Your task to perform on an android device: Add bose soundsport free to the cart on walmart.com, then select checkout. Image 0: 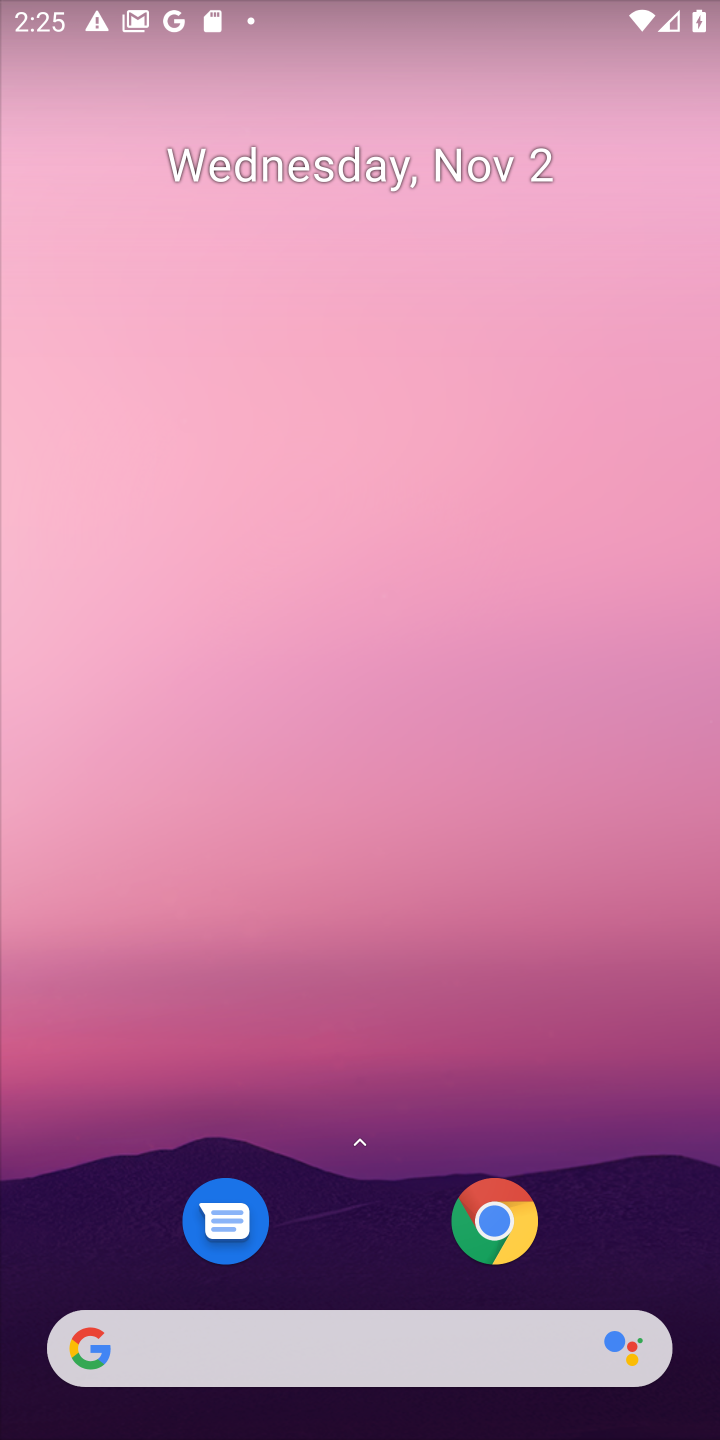
Step 0: click (403, 1359)
Your task to perform on an android device: Add bose soundsport free to the cart on walmart.com, then select checkout. Image 1: 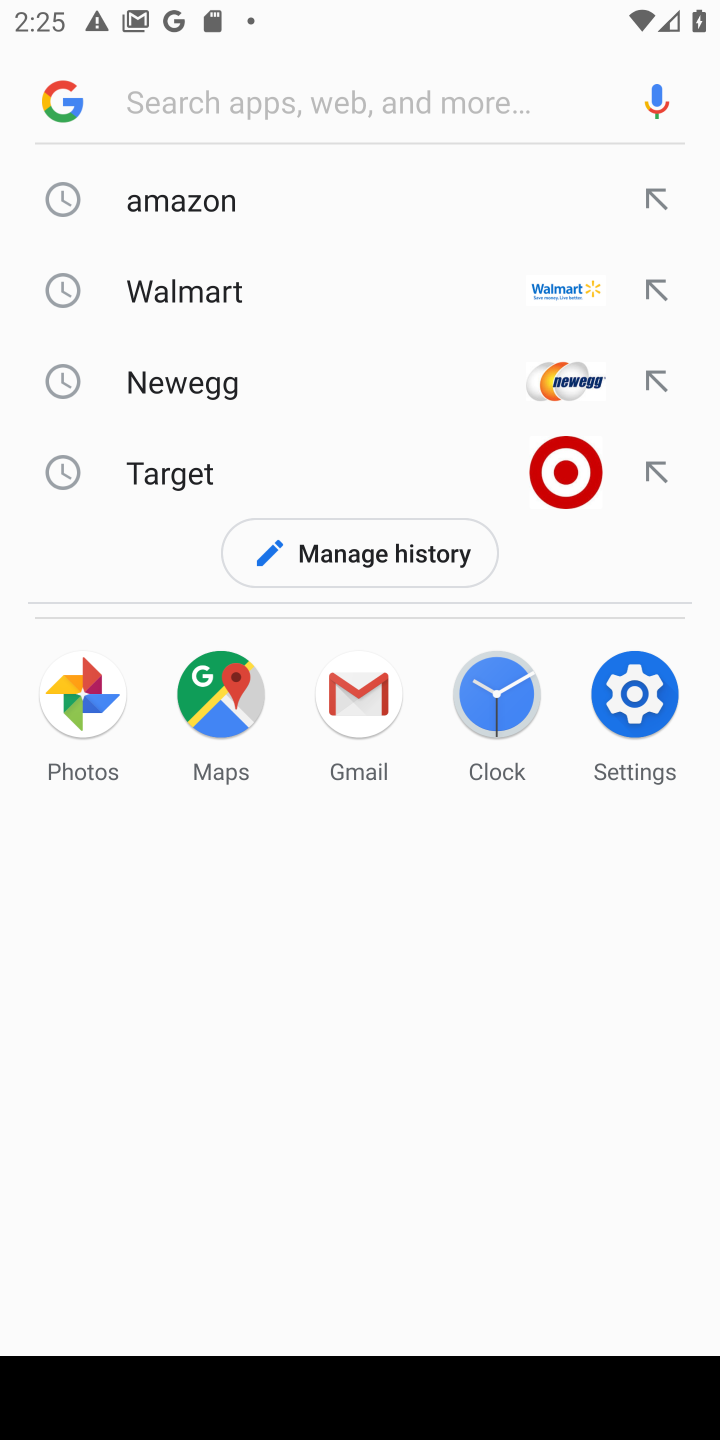
Step 1: type "wa"
Your task to perform on an android device: Add bose soundsport free to the cart on walmart.com, then select checkout. Image 2: 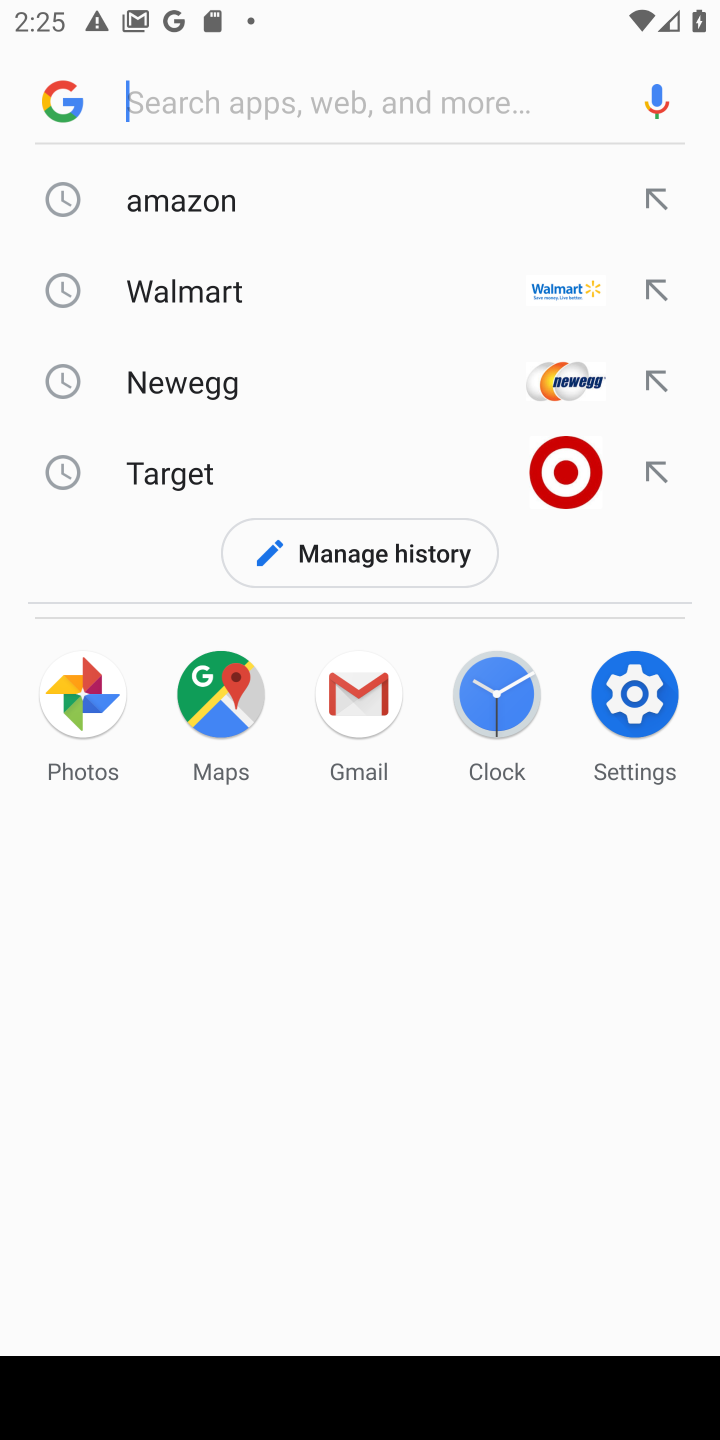
Step 2: click (153, 311)
Your task to perform on an android device: Add bose soundsport free to the cart on walmart.com, then select checkout. Image 3: 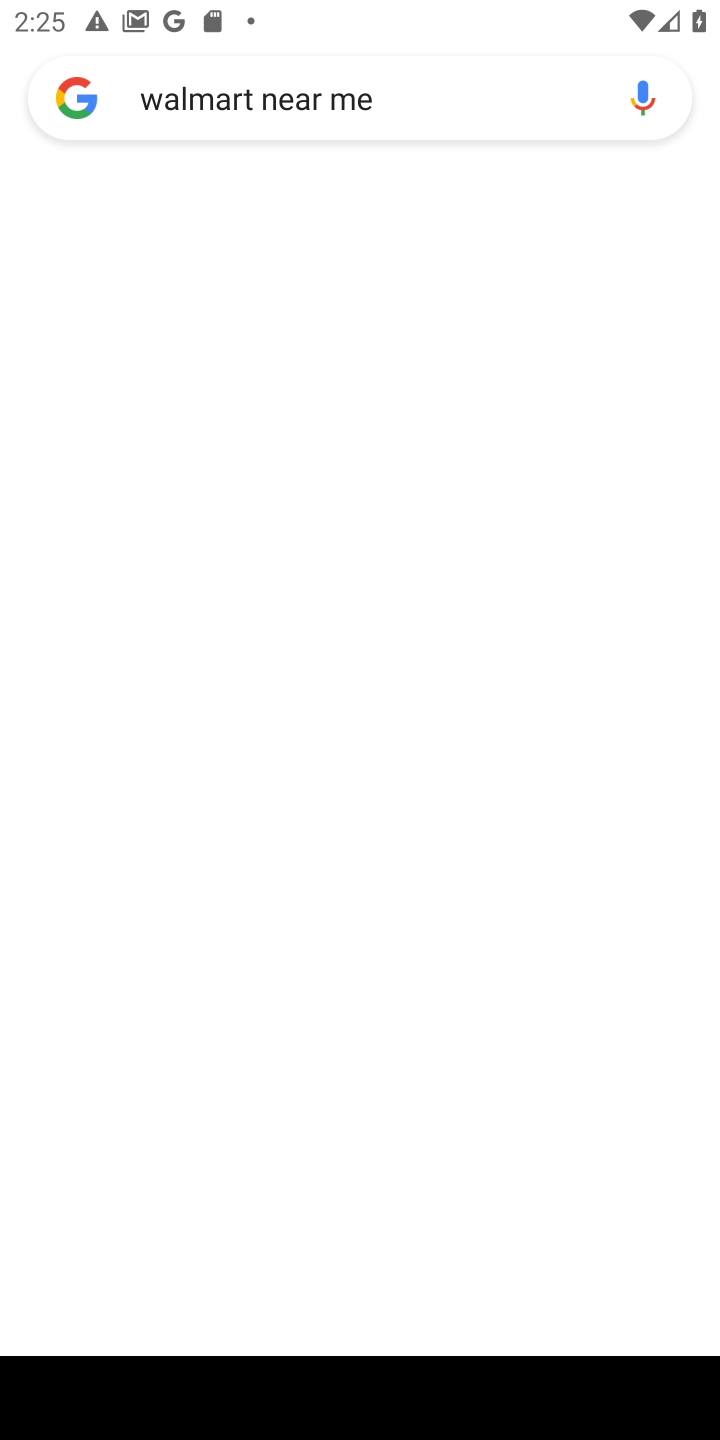
Step 3: click (153, 311)
Your task to perform on an android device: Add bose soundsport free to the cart on walmart.com, then select checkout. Image 4: 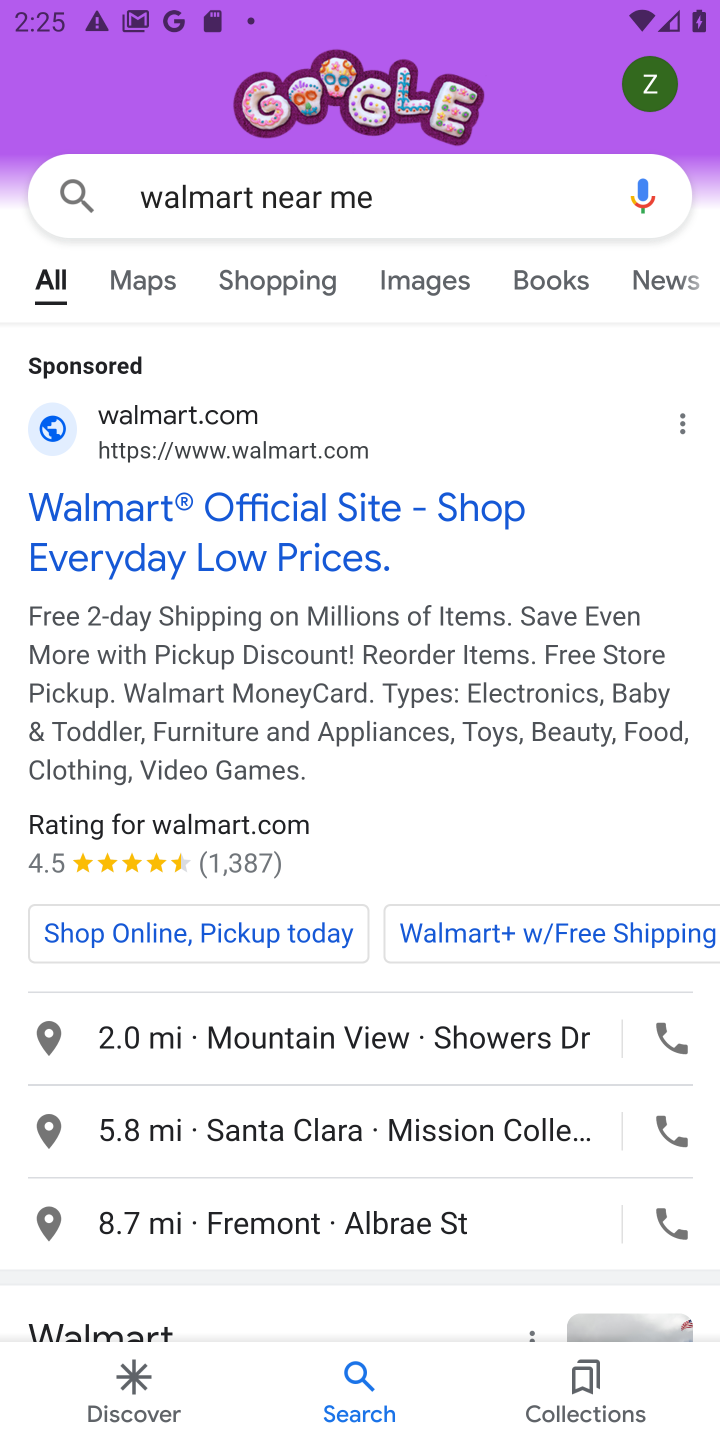
Step 4: click (257, 525)
Your task to perform on an android device: Add bose soundsport free to the cart on walmart.com, then select checkout. Image 5: 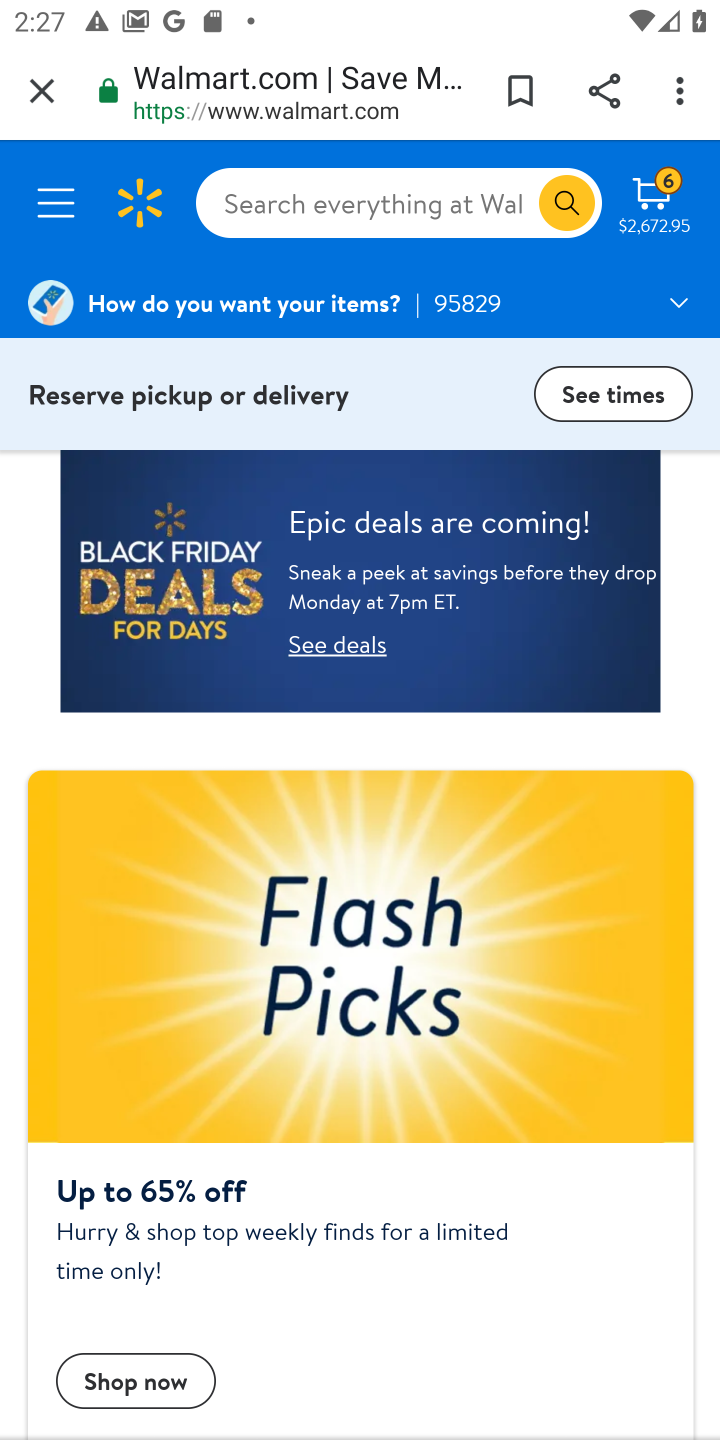
Step 5: click (257, 525)
Your task to perform on an android device: Add bose soundsport free to the cart on walmart.com, then select checkout. Image 6: 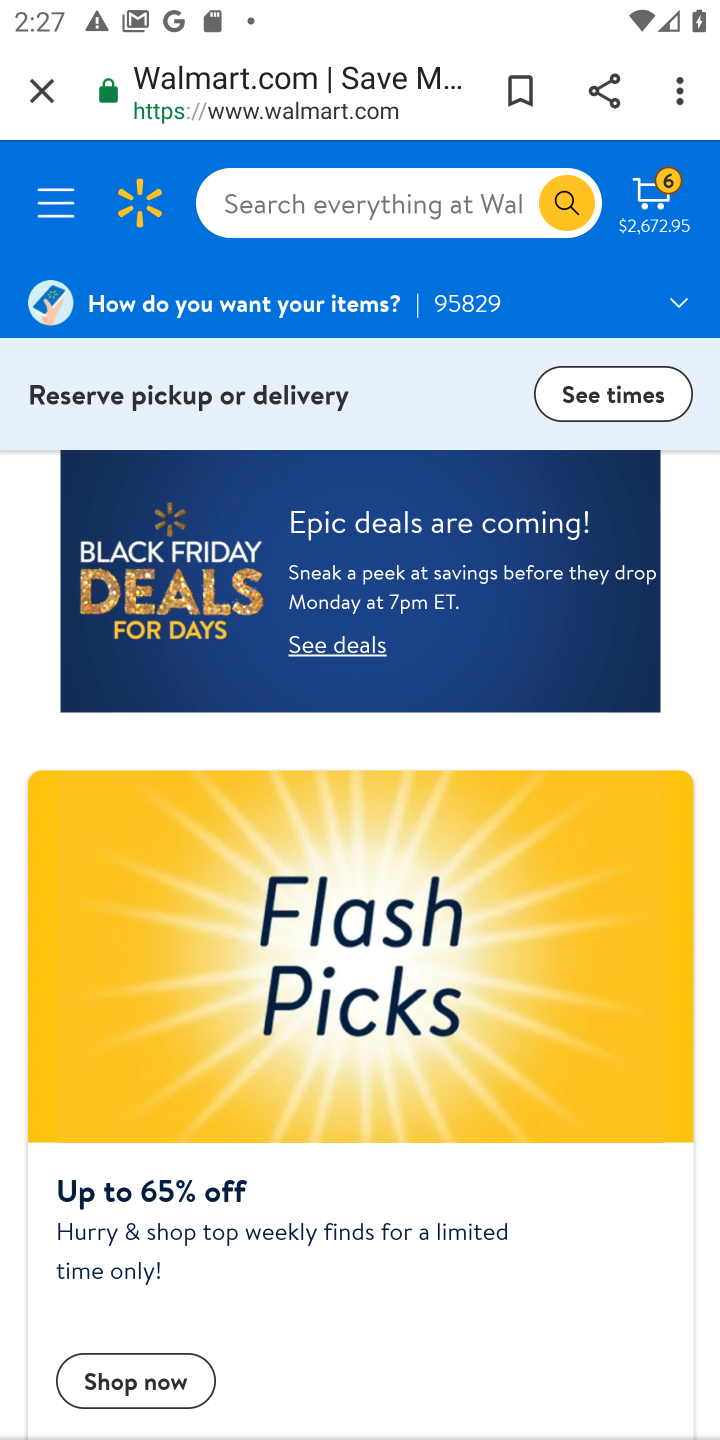
Step 6: task complete